Your task to perform on an android device: visit the assistant section in the google photos Image 0: 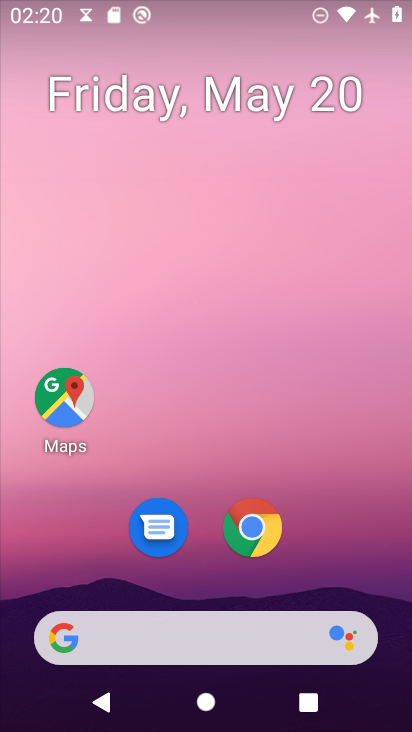
Step 0: press home button
Your task to perform on an android device: visit the assistant section in the google photos Image 1: 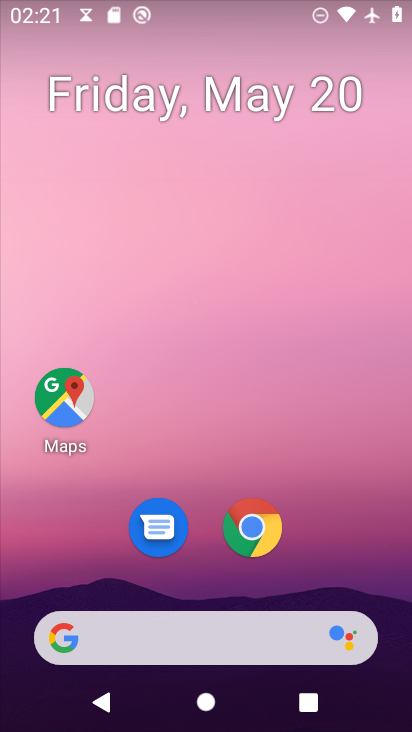
Step 1: drag from (148, 625) to (298, 176)
Your task to perform on an android device: visit the assistant section in the google photos Image 2: 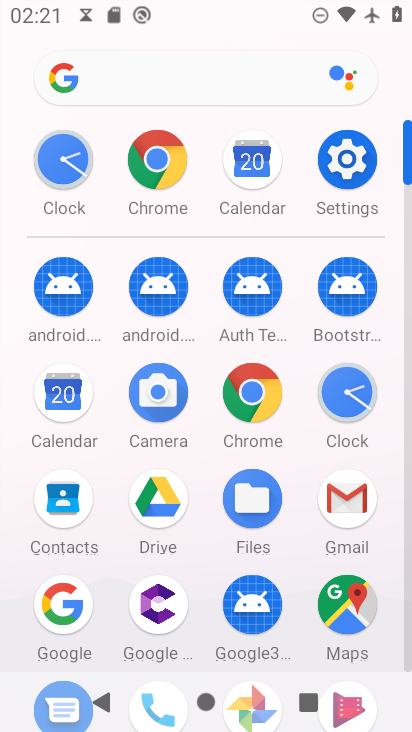
Step 2: drag from (183, 641) to (309, 257)
Your task to perform on an android device: visit the assistant section in the google photos Image 3: 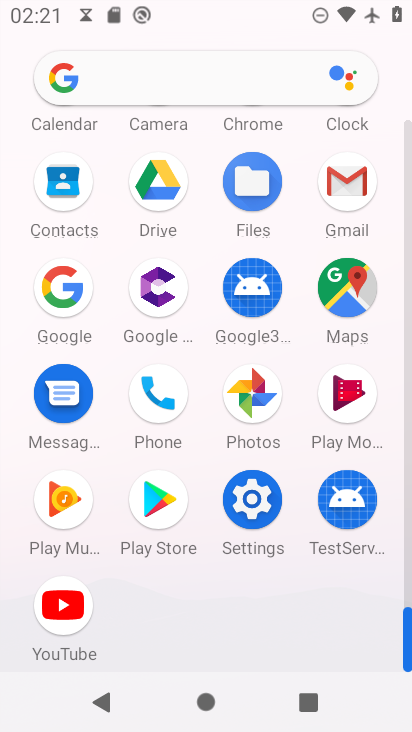
Step 3: click (260, 390)
Your task to perform on an android device: visit the assistant section in the google photos Image 4: 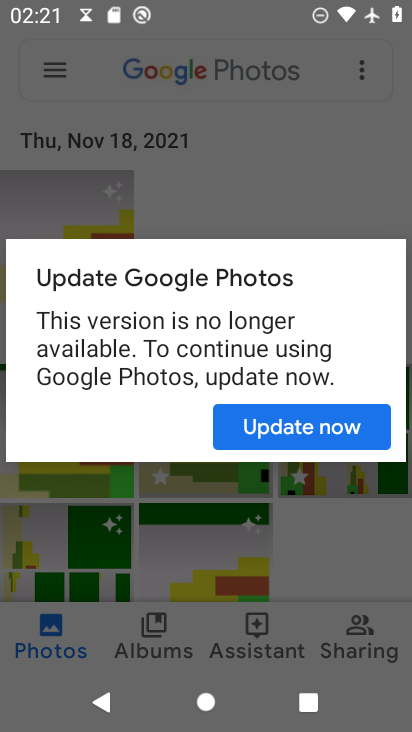
Step 4: click (281, 432)
Your task to perform on an android device: visit the assistant section in the google photos Image 5: 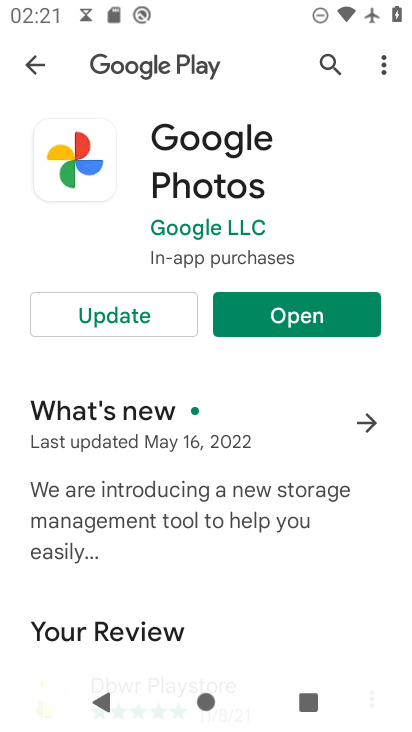
Step 5: click (331, 324)
Your task to perform on an android device: visit the assistant section in the google photos Image 6: 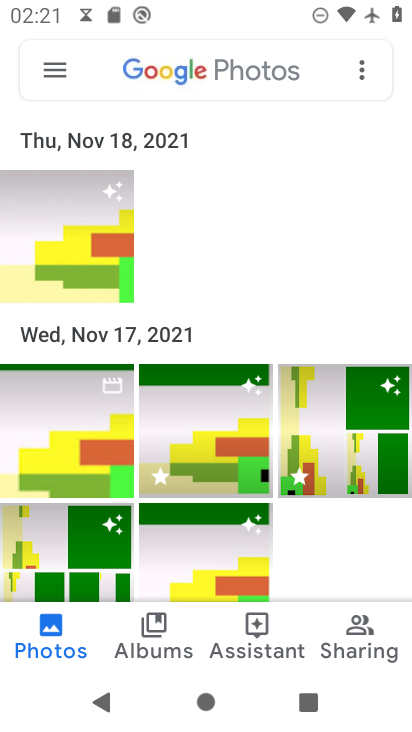
Step 6: click (253, 634)
Your task to perform on an android device: visit the assistant section in the google photos Image 7: 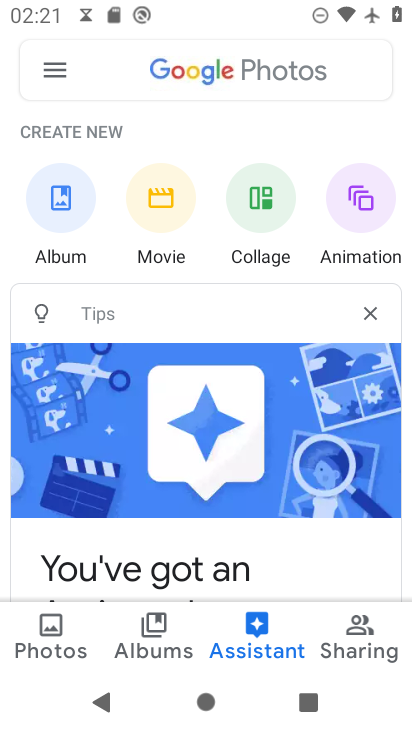
Step 7: task complete